Your task to perform on an android device: Show me popular games on the Play Store Image 0: 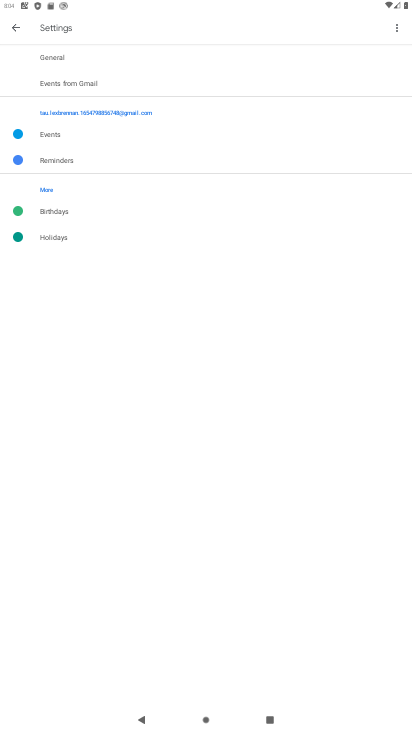
Step 0: press home button
Your task to perform on an android device: Show me popular games on the Play Store Image 1: 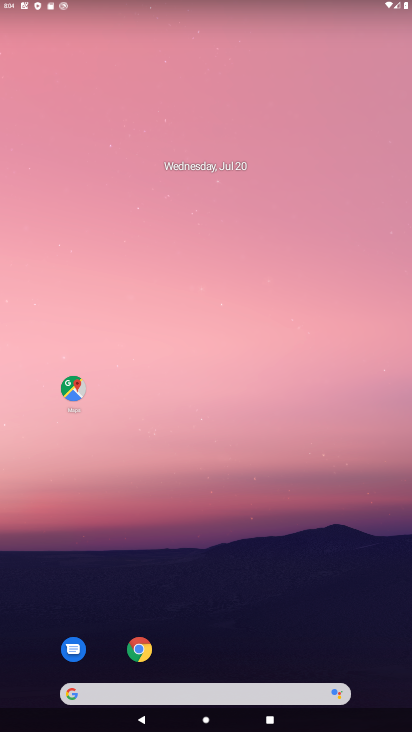
Step 1: drag from (187, 659) to (104, 93)
Your task to perform on an android device: Show me popular games on the Play Store Image 2: 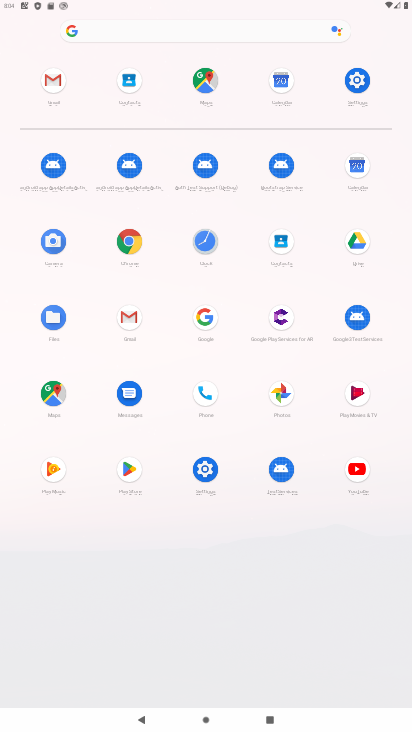
Step 2: click (133, 478)
Your task to perform on an android device: Show me popular games on the Play Store Image 3: 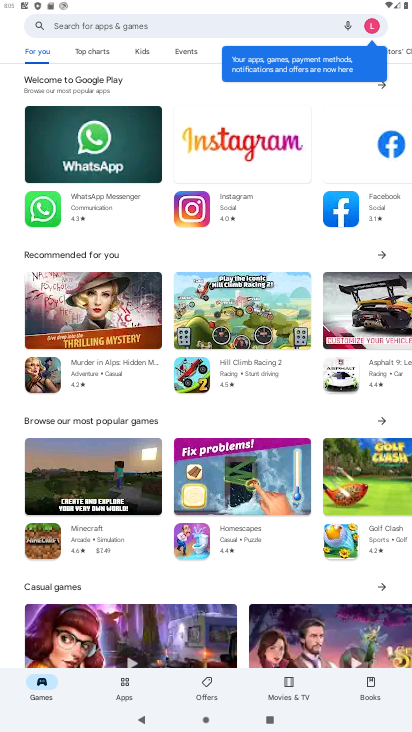
Step 3: click (93, 55)
Your task to perform on an android device: Show me popular games on the Play Store Image 4: 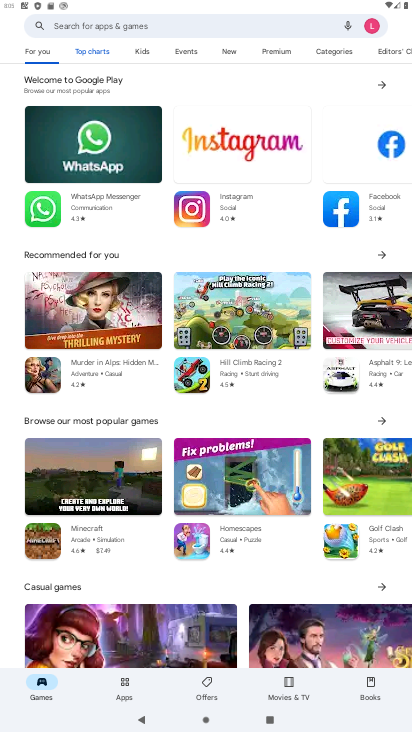
Step 4: task complete